Your task to perform on an android device: change the clock display to analog Image 0: 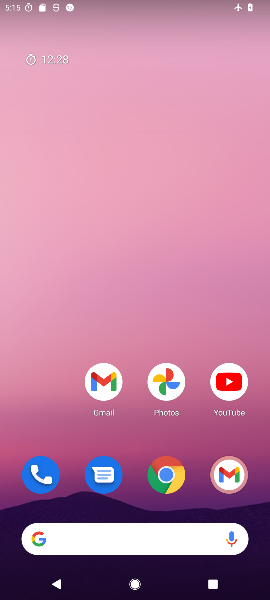
Step 0: press home button
Your task to perform on an android device: change the clock display to analog Image 1: 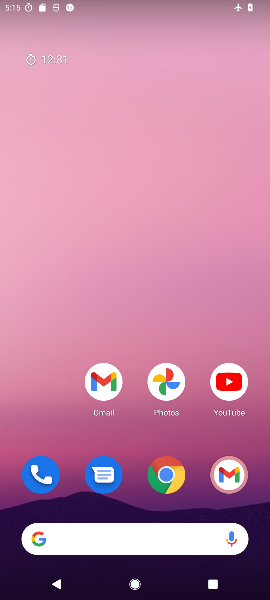
Step 1: drag from (51, 422) to (47, 169)
Your task to perform on an android device: change the clock display to analog Image 2: 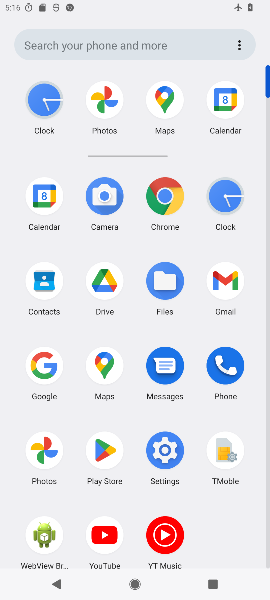
Step 2: click (226, 201)
Your task to perform on an android device: change the clock display to analog Image 3: 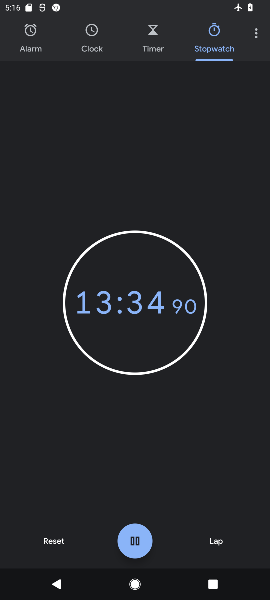
Step 3: click (258, 35)
Your task to perform on an android device: change the clock display to analog Image 4: 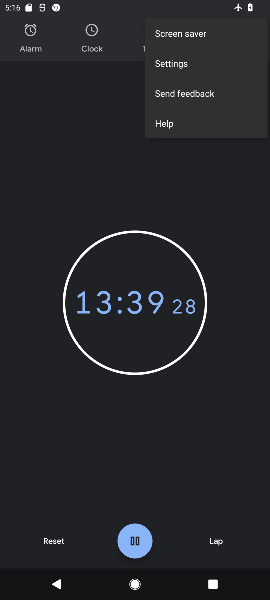
Step 4: click (173, 70)
Your task to perform on an android device: change the clock display to analog Image 5: 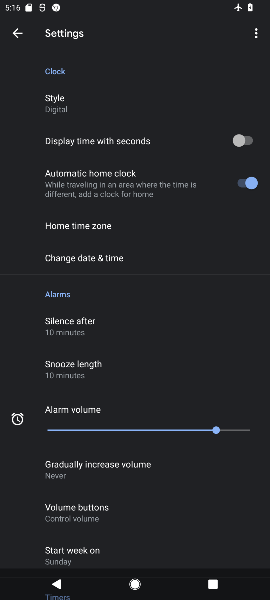
Step 5: drag from (172, 339) to (179, 223)
Your task to perform on an android device: change the clock display to analog Image 6: 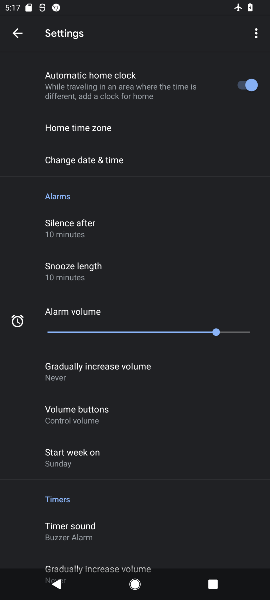
Step 6: drag from (175, 409) to (184, 264)
Your task to perform on an android device: change the clock display to analog Image 7: 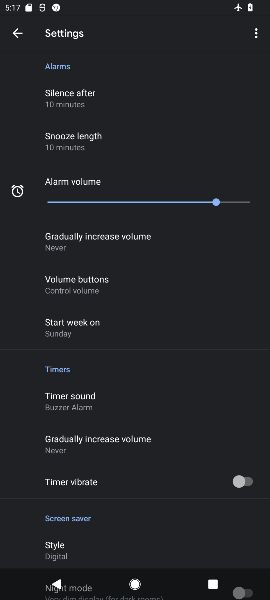
Step 7: drag from (169, 430) to (184, 270)
Your task to perform on an android device: change the clock display to analog Image 8: 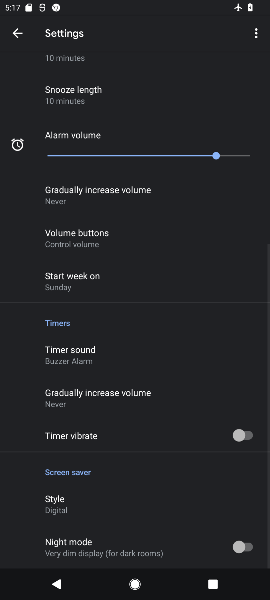
Step 8: drag from (184, 193) to (186, 344)
Your task to perform on an android device: change the clock display to analog Image 9: 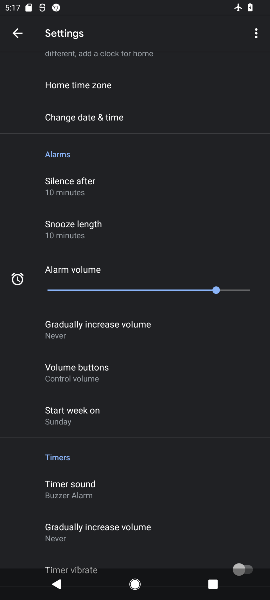
Step 9: drag from (200, 131) to (200, 283)
Your task to perform on an android device: change the clock display to analog Image 10: 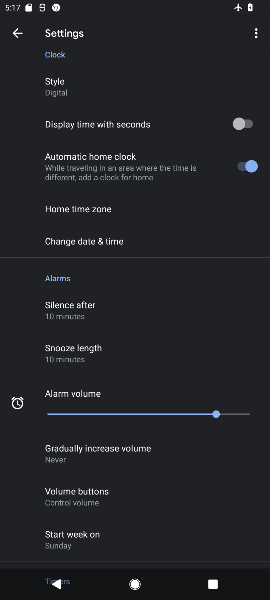
Step 10: drag from (190, 98) to (185, 245)
Your task to perform on an android device: change the clock display to analog Image 11: 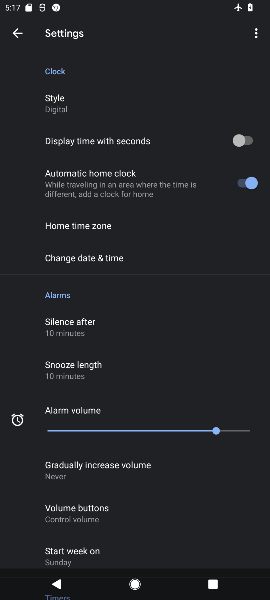
Step 11: click (66, 104)
Your task to perform on an android device: change the clock display to analog Image 12: 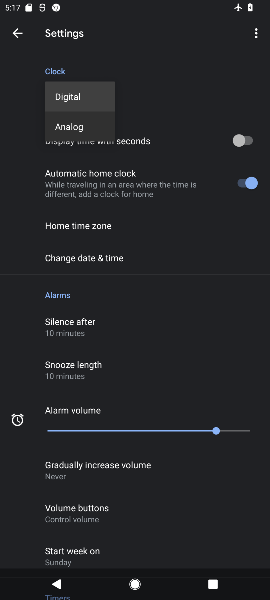
Step 12: click (72, 136)
Your task to perform on an android device: change the clock display to analog Image 13: 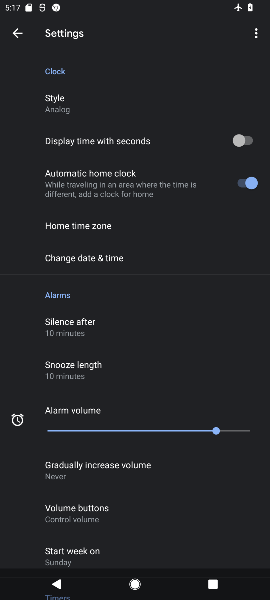
Step 13: task complete